Your task to perform on an android device: toggle javascript in the chrome app Image 0: 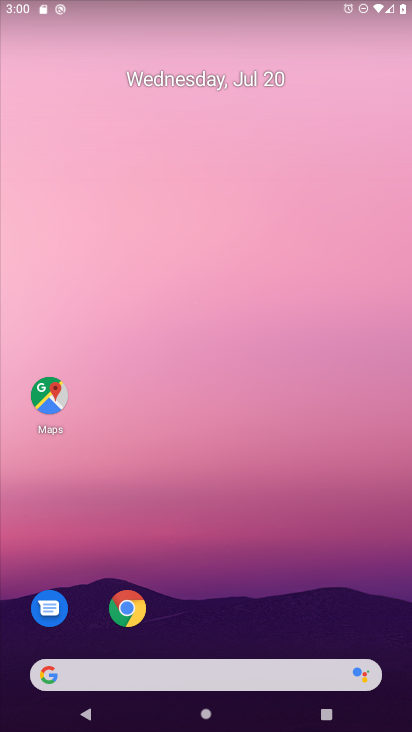
Step 0: click (117, 591)
Your task to perform on an android device: toggle javascript in the chrome app Image 1: 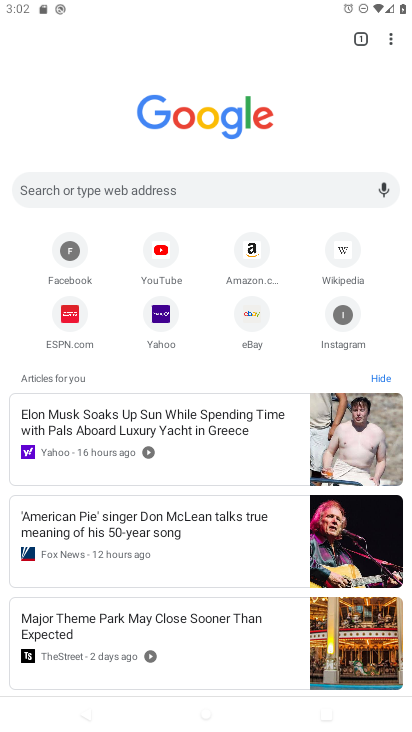
Step 1: click (397, 39)
Your task to perform on an android device: toggle javascript in the chrome app Image 2: 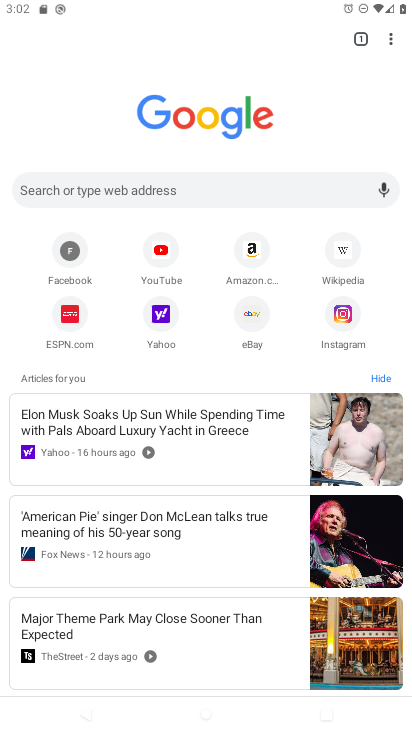
Step 2: click (395, 39)
Your task to perform on an android device: toggle javascript in the chrome app Image 3: 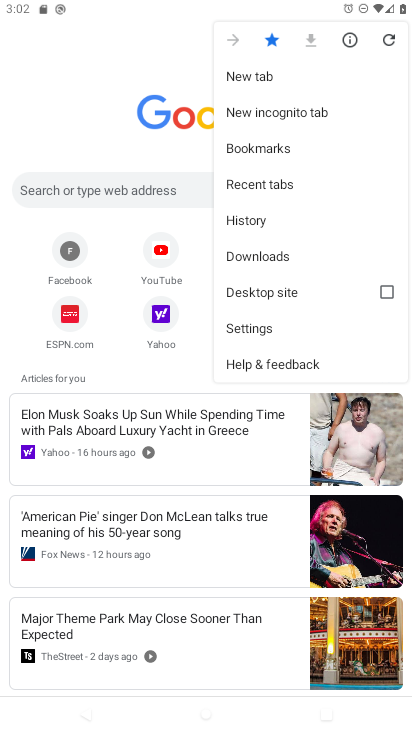
Step 3: click (286, 331)
Your task to perform on an android device: toggle javascript in the chrome app Image 4: 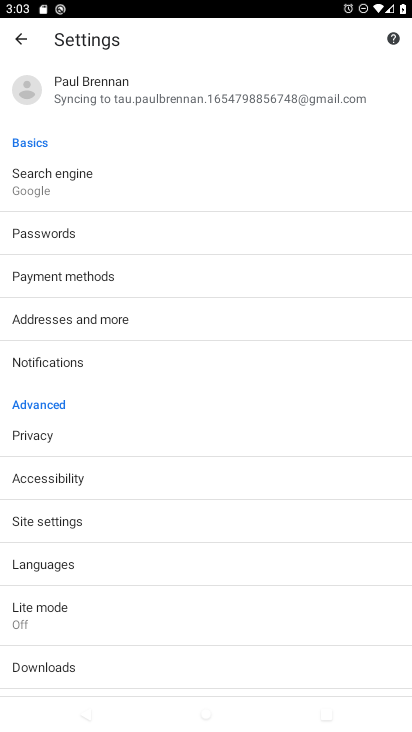
Step 4: click (117, 514)
Your task to perform on an android device: toggle javascript in the chrome app Image 5: 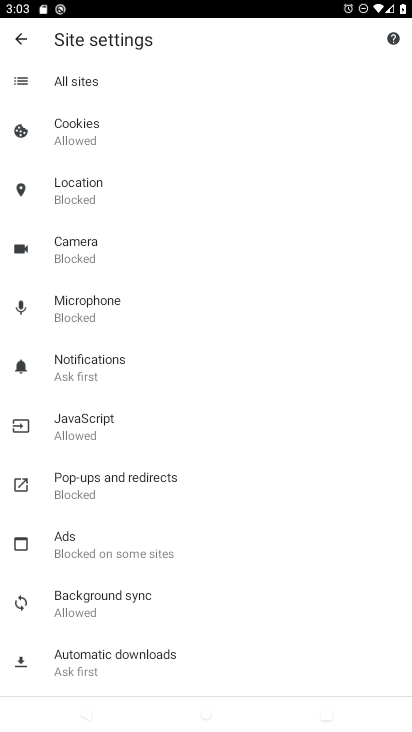
Step 5: click (111, 420)
Your task to perform on an android device: toggle javascript in the chrome app Image 6: 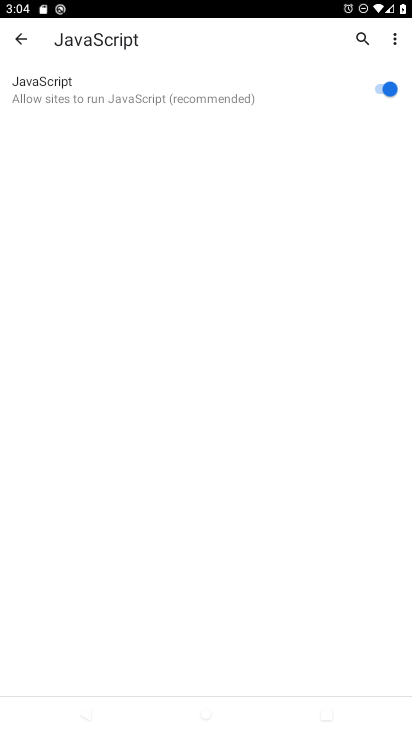
Step 6: click (393, 86)
Your task to perform on an android device: toggle javascript in the chrome app Image 7: 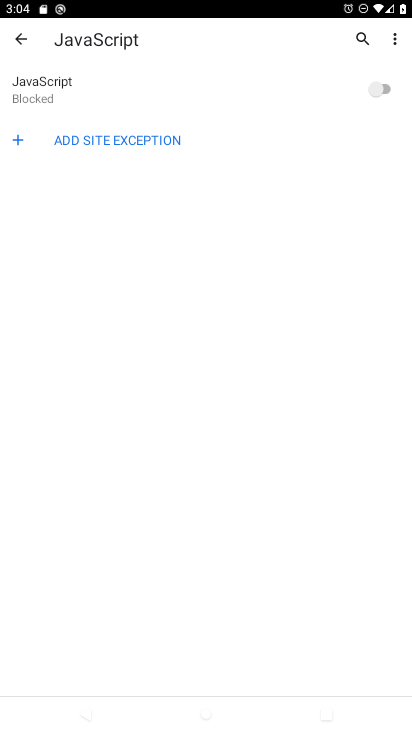
Step 7: task complete